Your task to perform on an android device: change the clock display to analog Image 0: 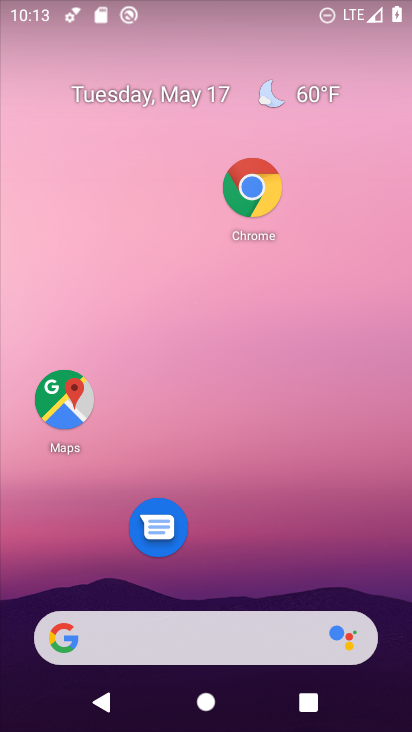
Step 0: drag from (303, 532) to (301, 264)
Your task to perform on an android device: change the clock display to analog Image 1: 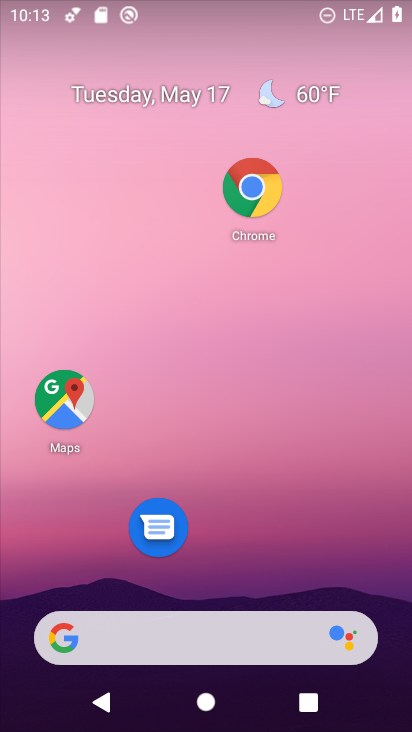
Step 1: drag from (284, 525) to (224, 10)
Your task to perform on an android device: change the clock display to analog Image 2: 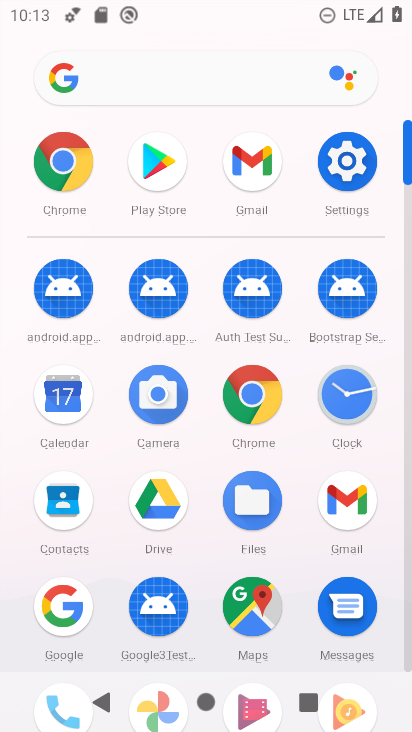
Step 2: click (343, 388)
Your task to perform on an android device: change the clock display to analog Image 3: 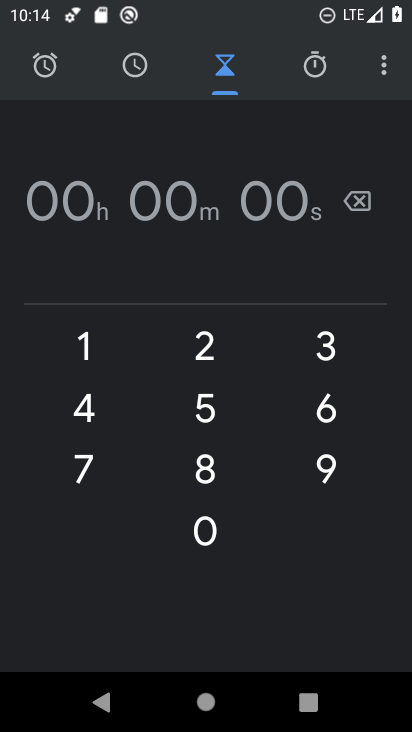
Step 3: click (381, 67)
Your task to perform on an android device: change the clock display to analog Image 4: 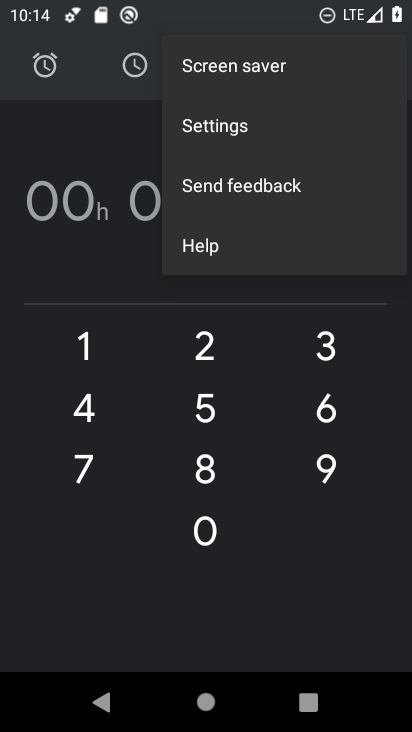
Step 4: click (246, 122)
Your task to perform on an android device: change the clock display to analog Image 5: 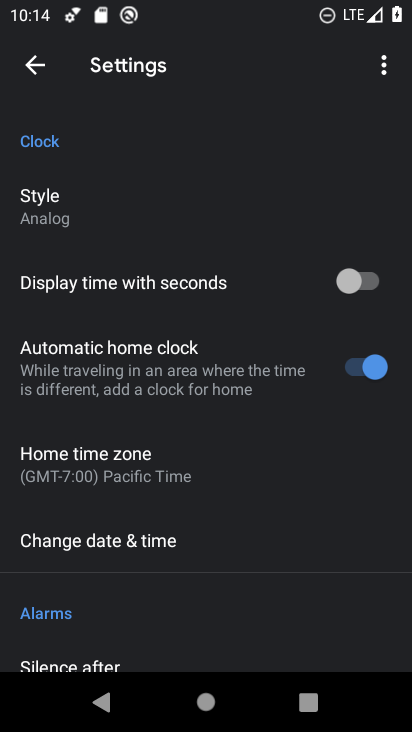
Step 5: task complete